Your task to perform on an android device: Go to wifi settings Image 0: 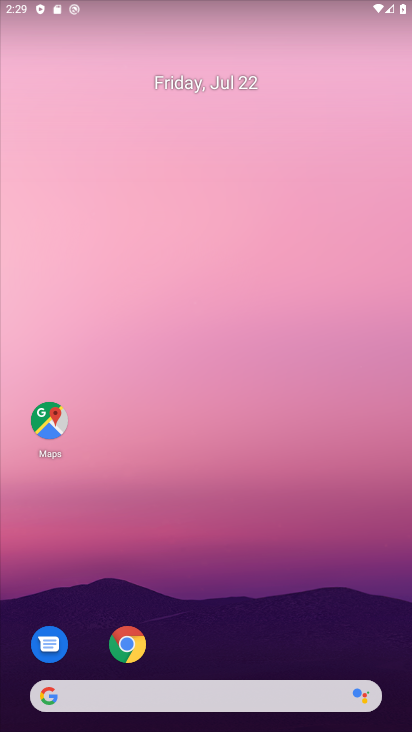
Step 0: press home button
Your task to perform on an android device: Go to wifi settings Image 1: 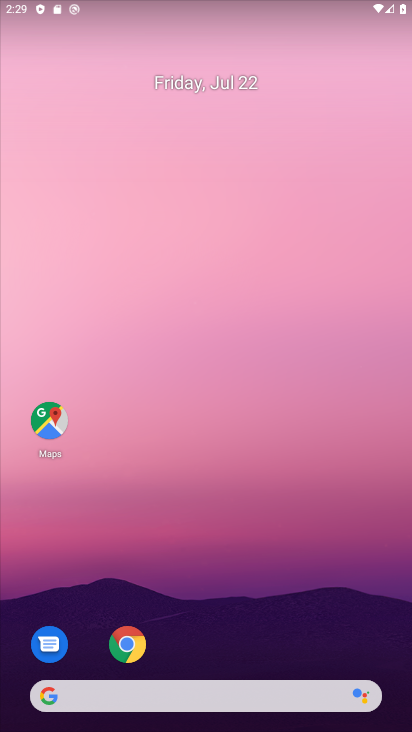
Step 1: drag from (244, 646) to (251, 308)
Your task to perform on an android device: Go to wifi settings Image 2: 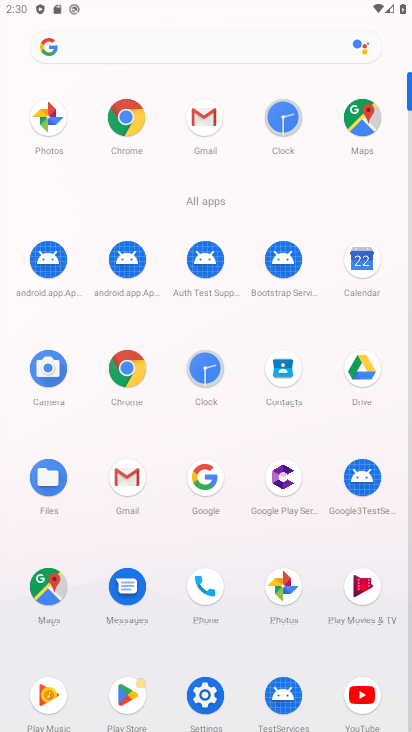
Step 2: click (203, 701)
Your task to perform on an android device: Go to wifi settings Image 3: 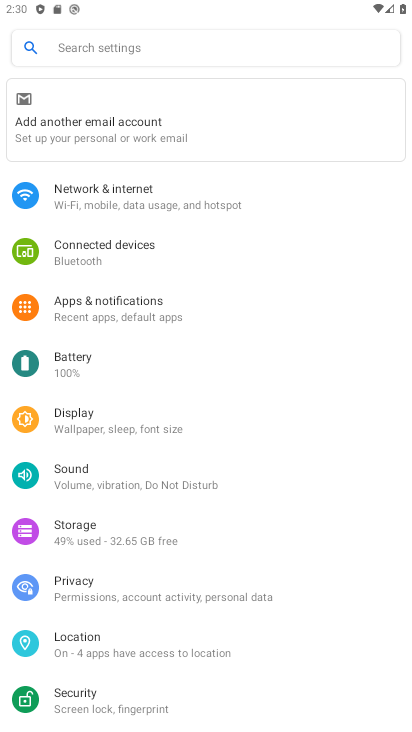
Step 3: click (103, 194)
Your task to perform on an android device: Go to wifi settings Image 4: 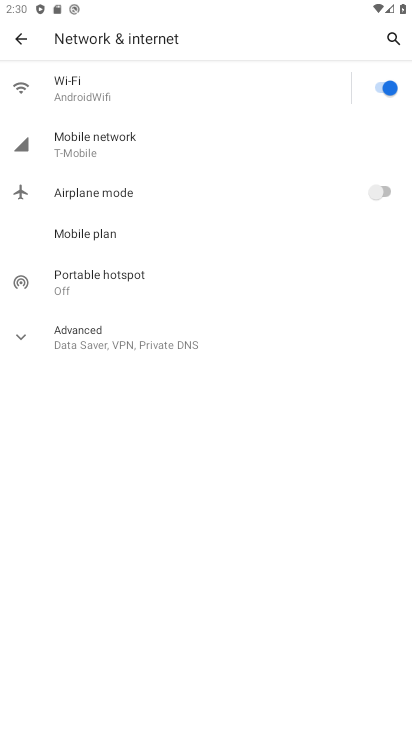
Step 4: click (72, 83)
Your task to perform on an android device: Go to wifi settings Image 5: 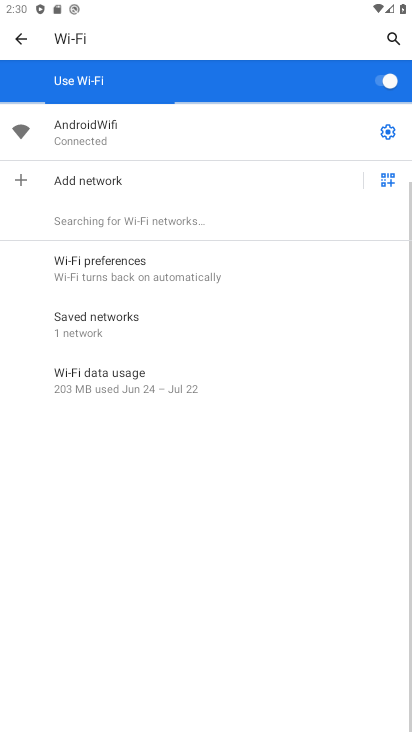
Step 5: task complete